Your task to perform on an android device: check android version Image 0: 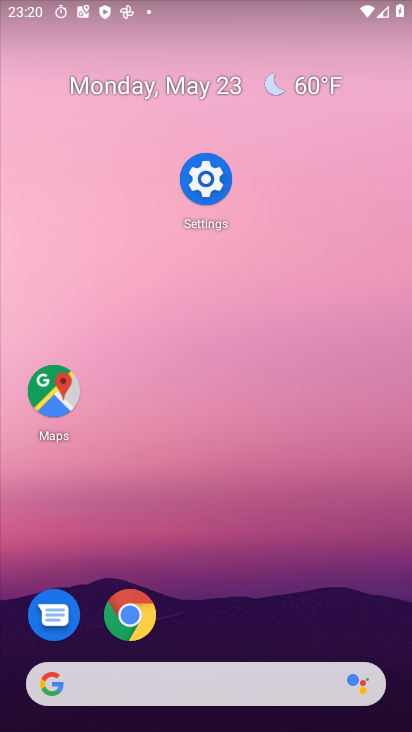
Step 0: drag from (233, 590) to (230, 499)
Your task to perform on an android device: check android version Image 1: 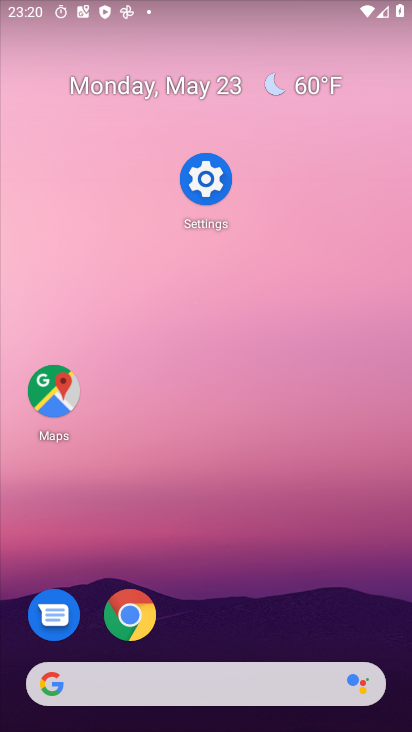
Step 1: click (220, 416)
Your task to perform on an android device: check android version Image 2: 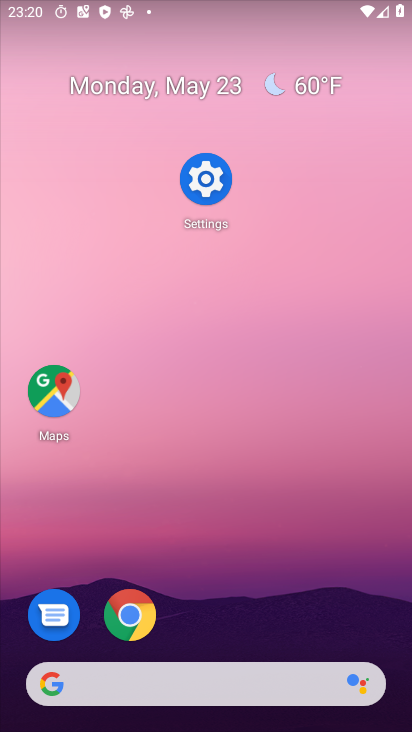
Step 2: click (211, 183)
Your task to perform on an android device: check android version Image 3: 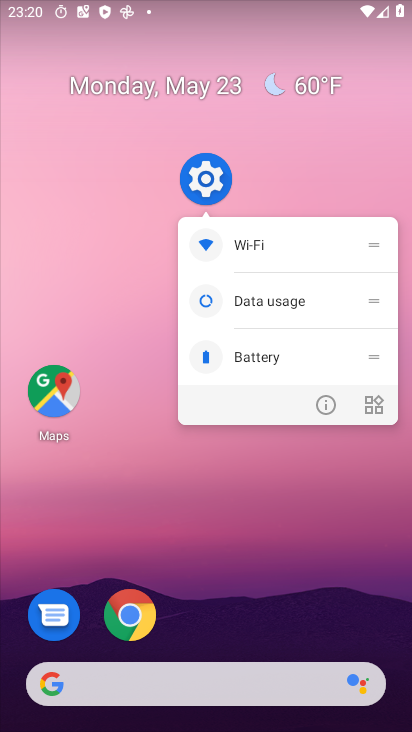
Step 3: click (138, 191)
Your task to perform on an android device: check android version Image 4: 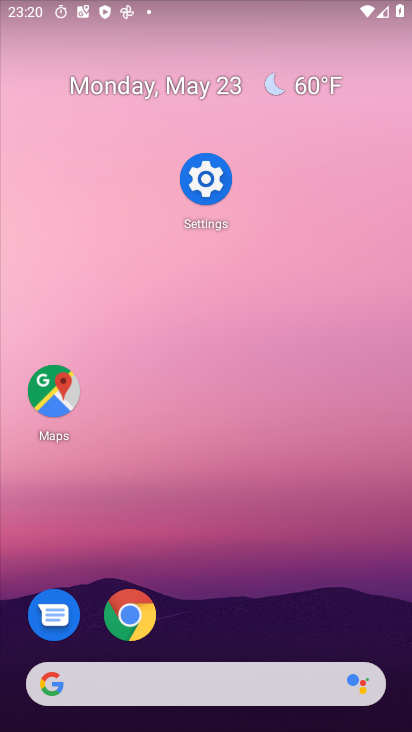
Step 4: click (200, 176)
Your task to perform on an android device: check android version Image 5: 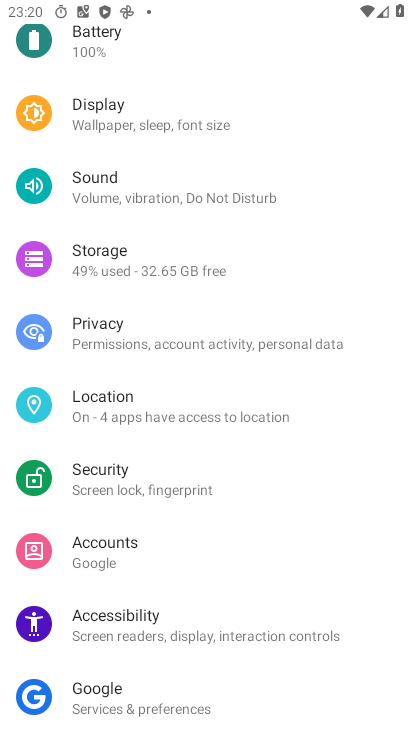
Step 5: drag from (208, 655) to (241, 128)
Your task to perform on an android device: check android version Image 6: 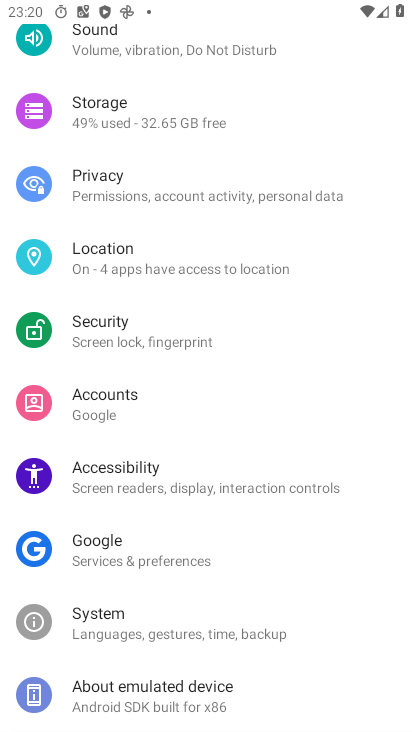
Step 6: click (148, 699)
Your task to perform on an android device: check android version Image 7: 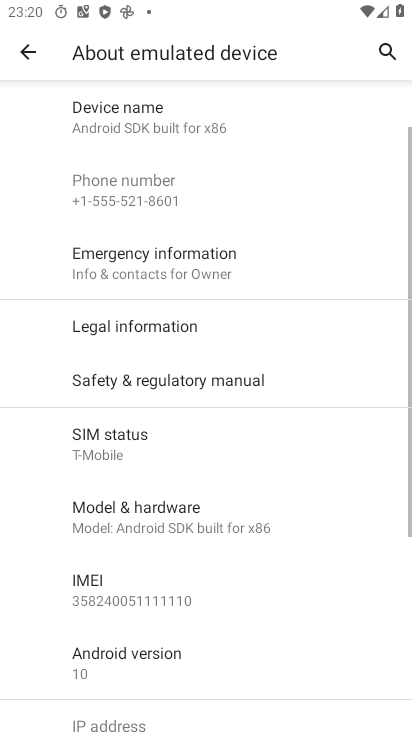
Step 7: click (141, 668)
Your task to perform on an android device: check android version Image 8: 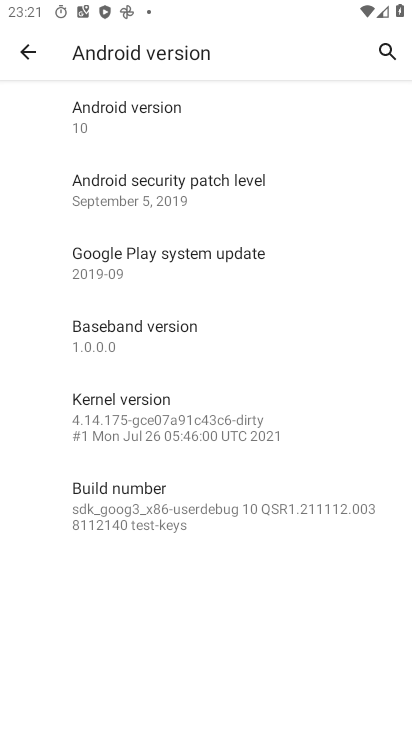
Step 8: task complete